Your task to perform on an android device: Open Google Chrome Image 0: 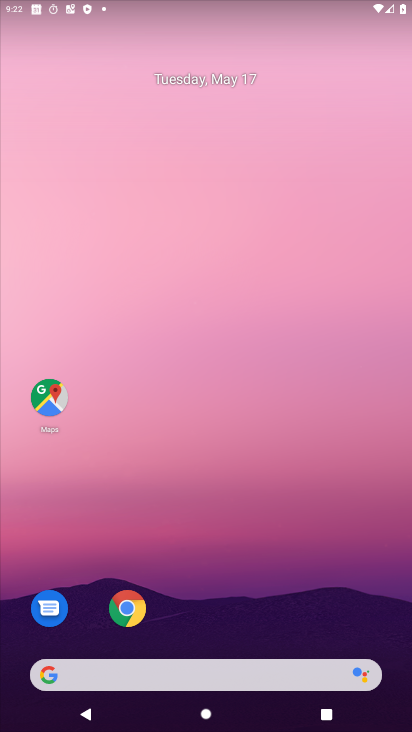
Step 0: drag from (372, 625) to (352, 253)
Your task to perform on an android device: Open Google Chrome Image 1: 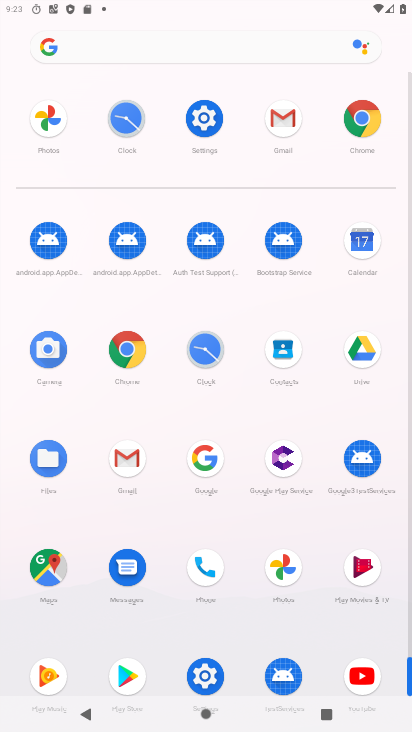
Step 1: drag from (241, 503) to (258, 214)
Your task to perform on an android device: Open Google Chrome Image 2: 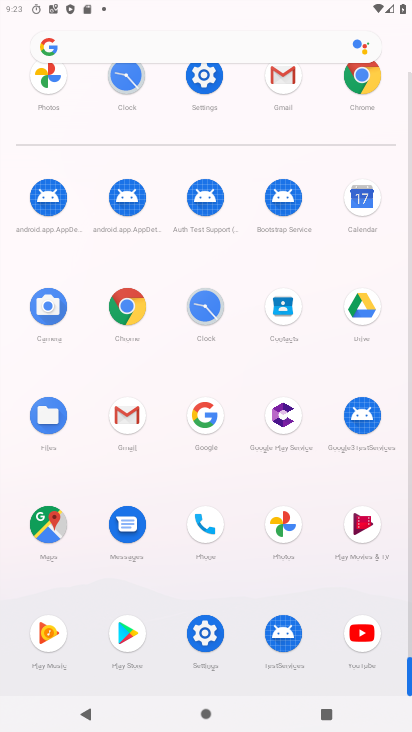
Step 2: click (126, 313)
Your task to perform on an android device: Open Google Chrome Image 3: 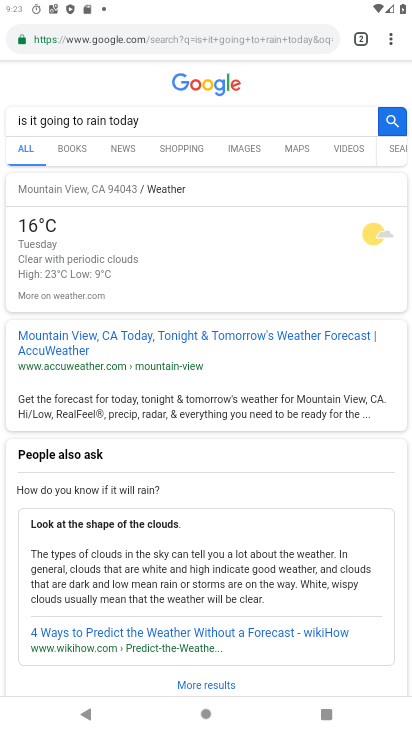
Step 3: task complete